Your task to perform on an android device: turn on improve location accuracy Image 0: 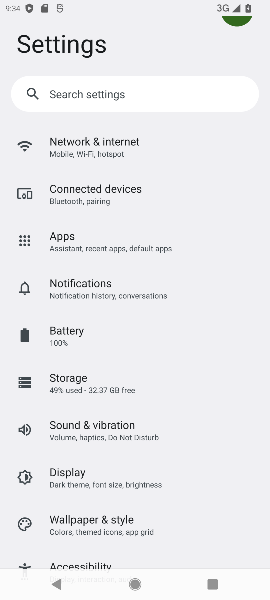
Step 0: drag from (93, 505) to (129, 125)
Your task to perform on an android device: turn on improve location accuracy Image 1: 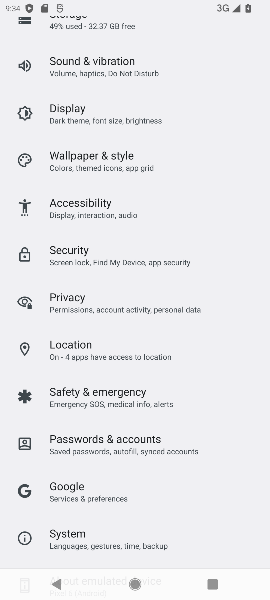
Step 1: click (112, 354)
Your task to perform on an android device: turn on improve location accuracy Image 2: 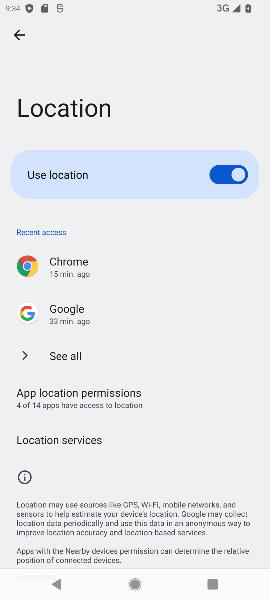
Step 2: drag from (90, 418) to (116, 128)
Your task to perform on an android device: turn on improve location accuracy Image 3: 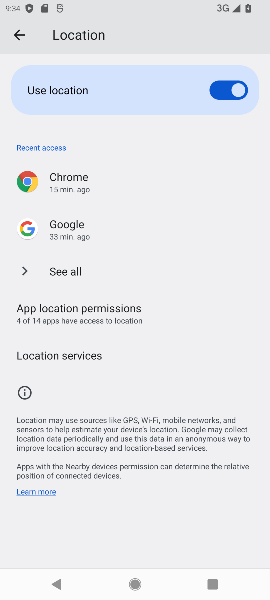
Step 3: click (76, 351)
Your task to perform on an android device: turn on improve location accuracy Image 4: 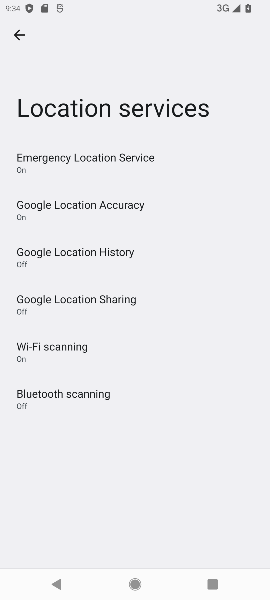
Step 4: click (139, 196)
Your task to perform on an android device: turn on improve location accuracy Image 5: 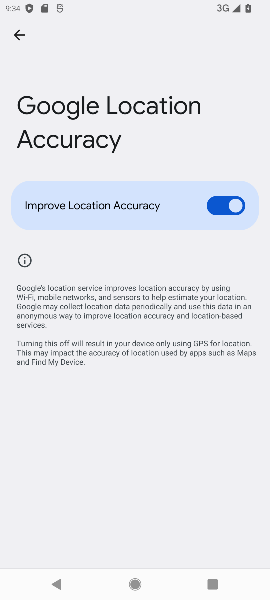
Step 5: click (167, 200)
Your task to perform on an android device: turn on improve location accuracy Image 6: 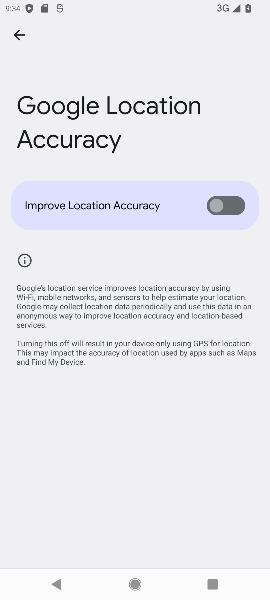
Step 6: click (167, 200)
Your task to perform on an android device: turn on improve location accuracy Image 7: 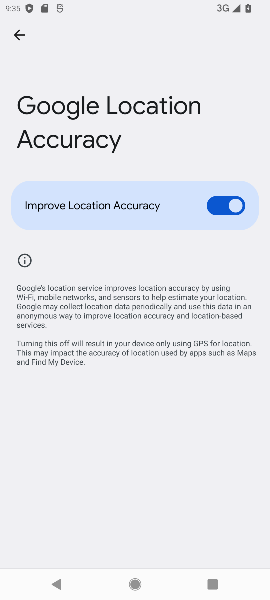
Step 7: task complete